Your task to perform on an android device: Open maps Image 0: 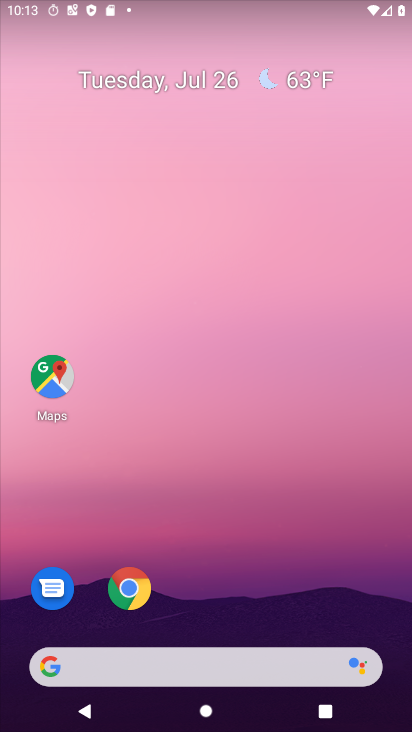
Step 0: click (37, 375)
Your task to perform on an android device: Open maps Image 1: 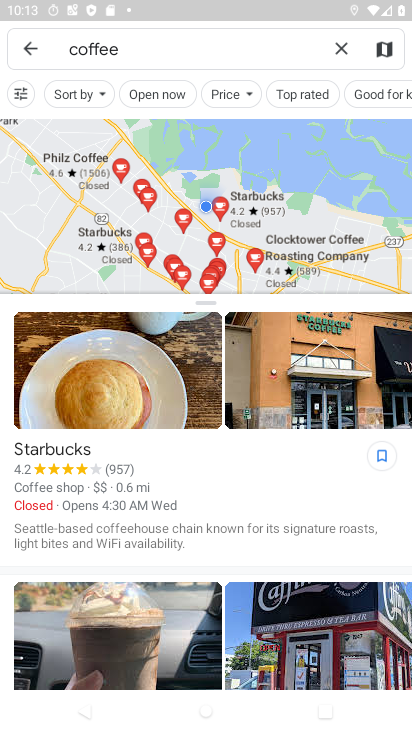
Step 1: task complete